Your task to perform on an android device: turn on improve location accuracy Image 0: 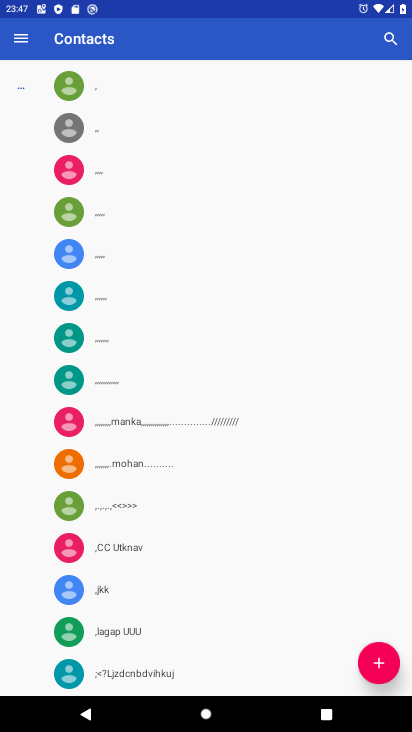
Step 0: press back button
Your task to perform on an android device: turn on improve location accuracy Image 1: 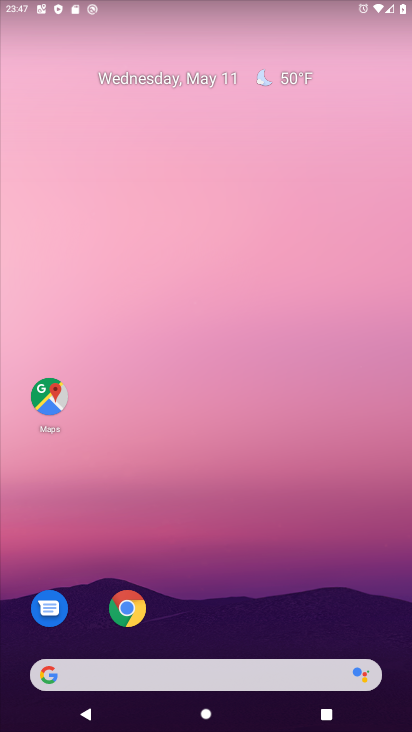
Step 1: drag from (247, 610) to (209, 134)
Your task to perform on an android device: turn on improve location accuracy Image 2: 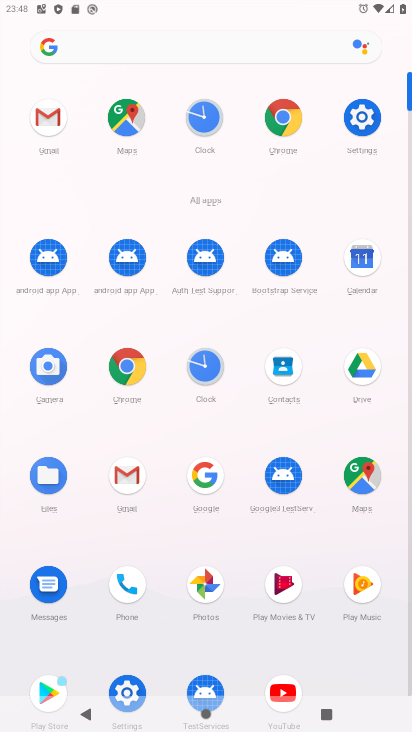
Step 2: click (361, 116)
Your task to perform on an android device: turn on improve location accuracy Image 3: 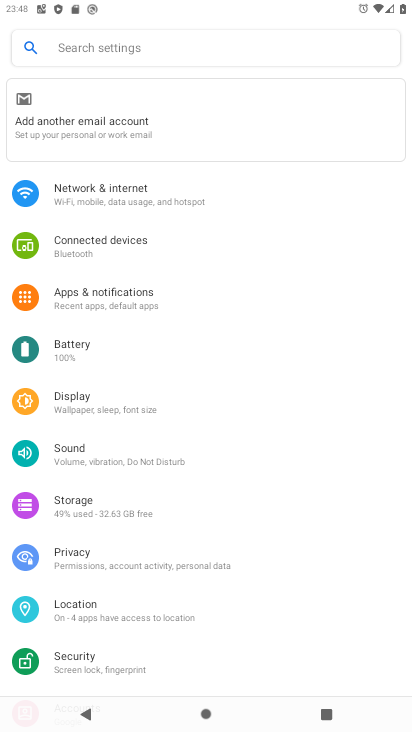
Step 3: click (85, 617)
Your task to perform on an android device: turn on improve location accuracy Image 4: 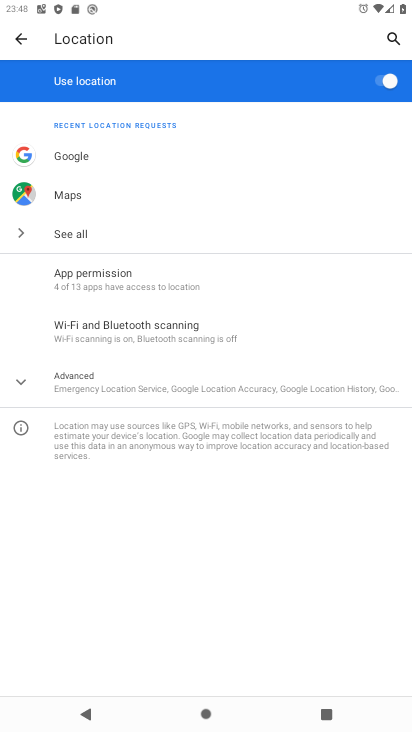
Step 4: click (107, 389)
Your task to perform on an android device: turn on improve location accuracy Image 5: 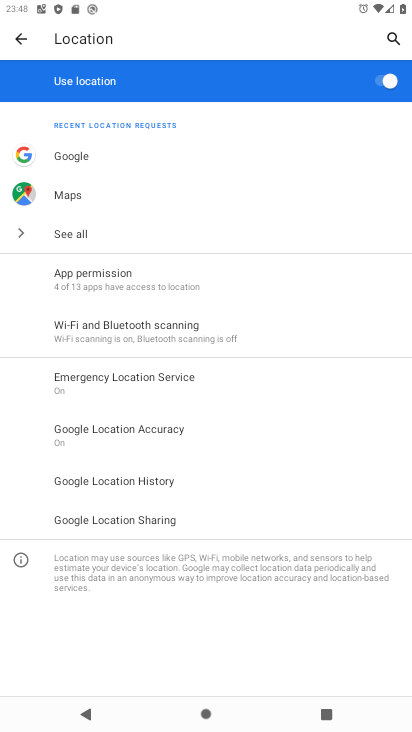
Step 5: click (103, 431)
Your task to perform on an android device: turn on improve location accuracy Image 6: 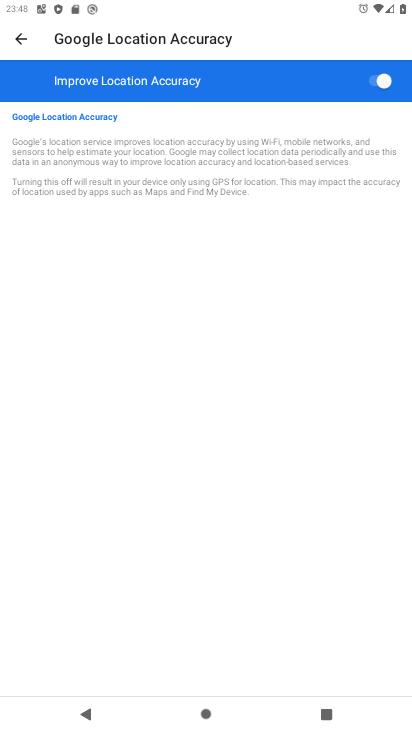
Step 6: task complete